Your task to perform on an android device: Open internet settings Image 0: 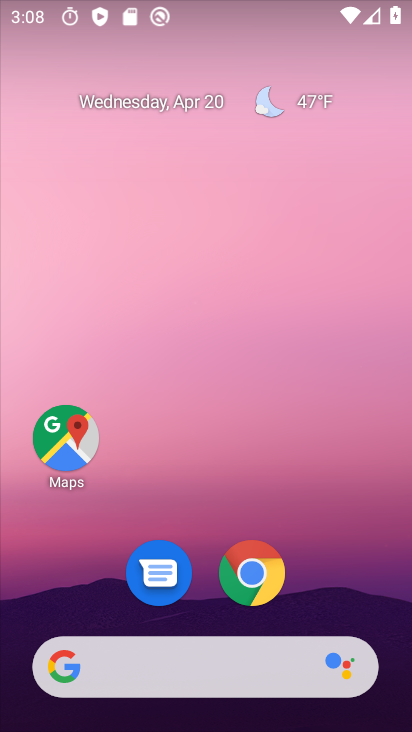
Step 0: drag from (217, 727) to (188, 61)
Your task to perform on an android device: Open internet settings Image 1: 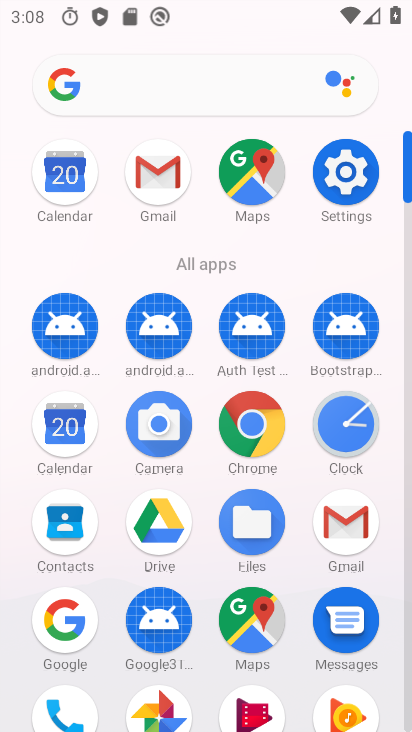
Step 1: click (343, 168)
Your task to perform on an android device: Open internet settings Image 2: 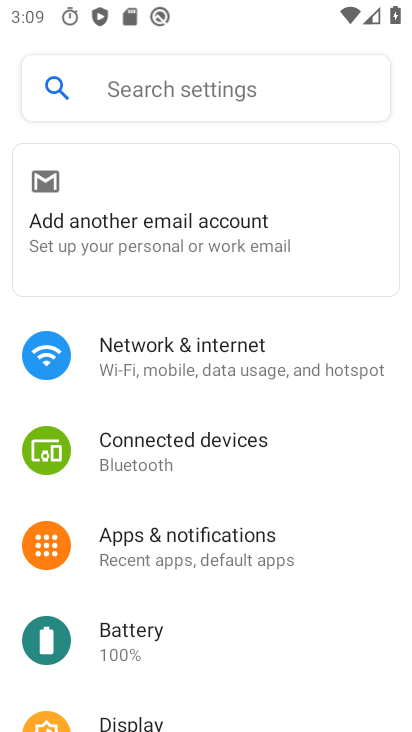
Step 2: click (171, 351)
Your task to perform on an android device: Open internet settings Image 3: 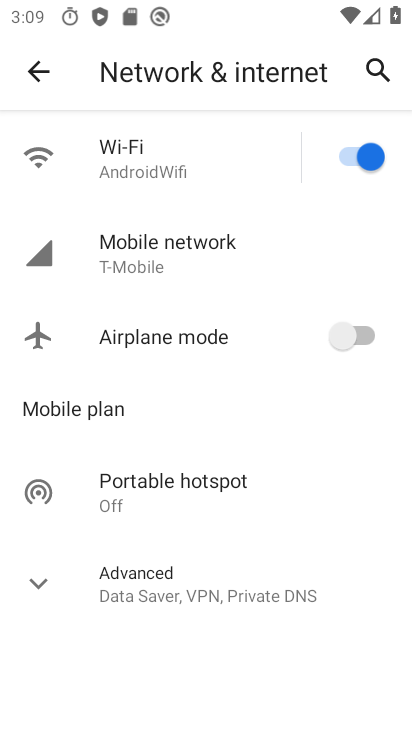
Step 3: task complete